Your task to perform on an android device: What's the weather going to be tomorrow? Image 0: 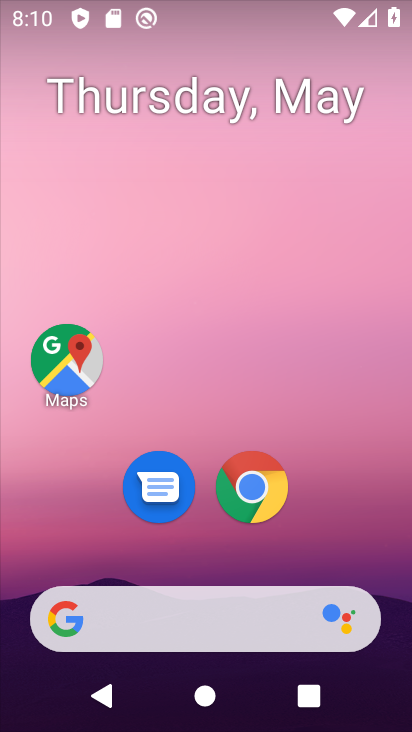
Step 0: press home button
Your task to perform on an android device: What's the weather going to be tomorrow? Image 1: 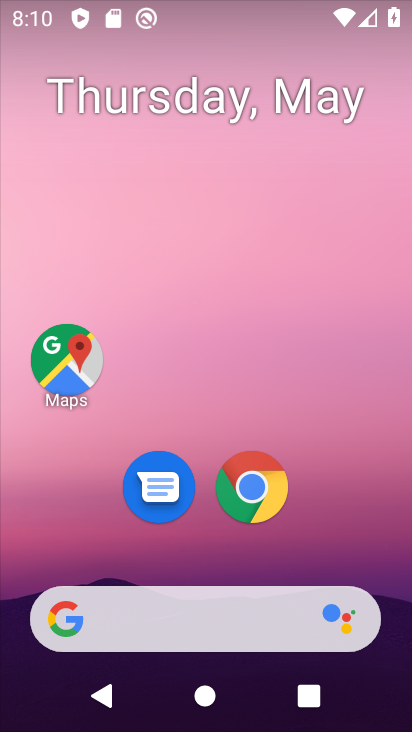
Step 1: drag from (381, 570) to (320, 3)
Your task to perform on an android device: What's the weather going to be tomorrow? Image 2: 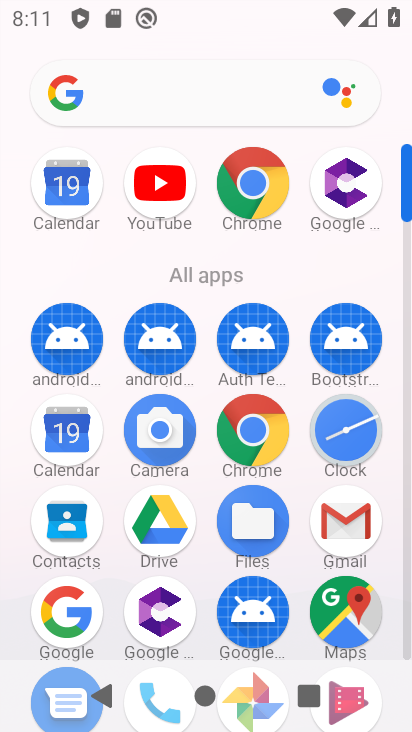
Step 2: drag from (130, 280) to (198, 701)
Your task to perform on an android device: What's the weather going to be tomorrow? Image 3: 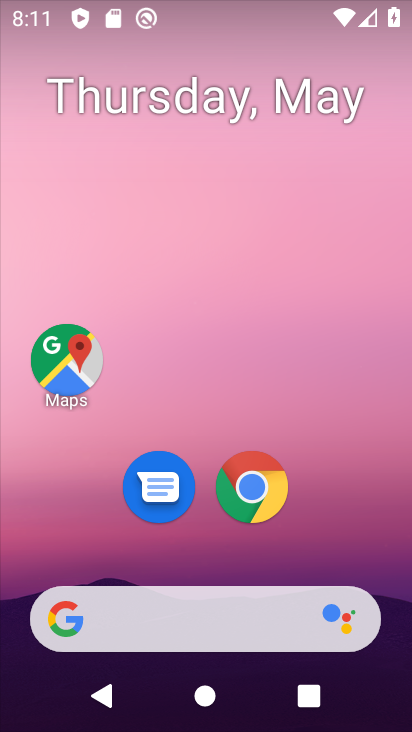
Step 3: drag from (21, 207) to (396, 156)
Your task to perform on an android device: What's the weather going to be tomorrow? Image 4: 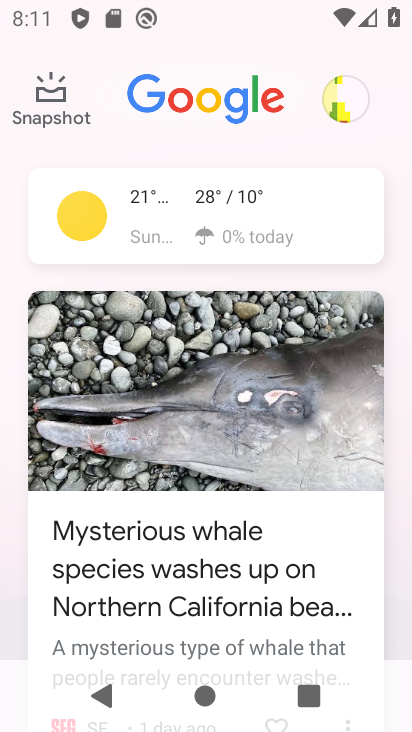
Step 4: click (265, 201)
Your task to perform on an android device: What's the weather going to be tomorrow? Image 5: 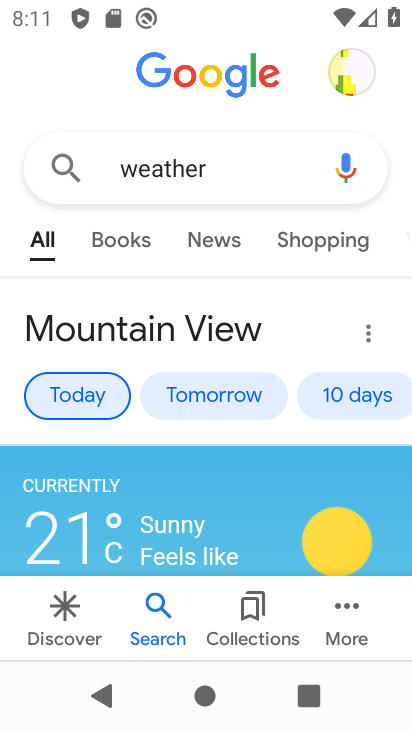
Step 5: click (215, 392)
Your task to perform on an android device: What's the weather going to be tomorrow? Image 6: 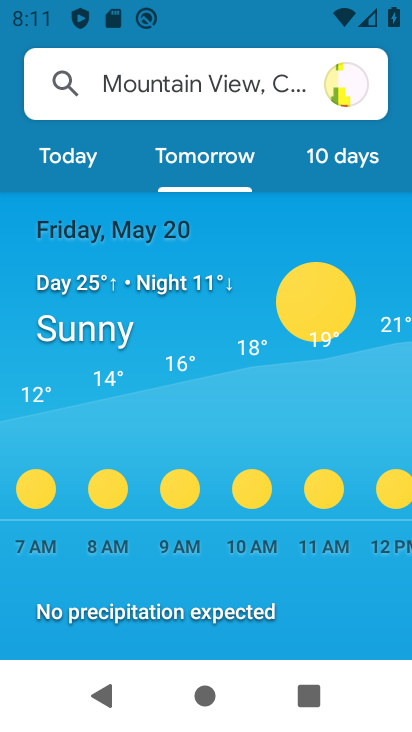
Step 6: task complete